Your task to perform on an android device: Show me productivity apps on the Play Store Image 0: 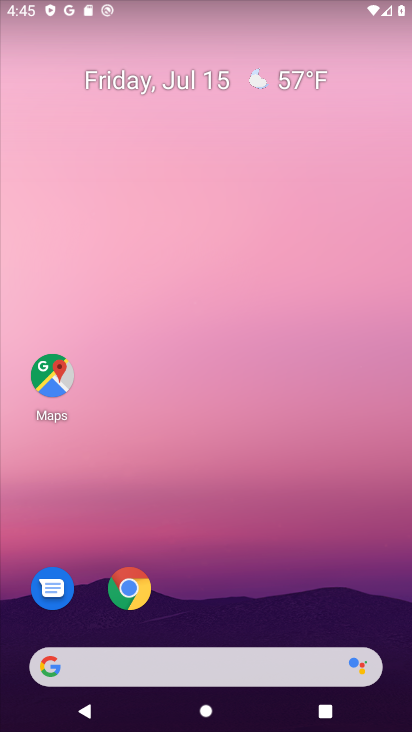
Step 0: drag from (307, 553) to (354, 196)
Your task to perform on an android device: Show me productivity apps on the Play Store Image 1: 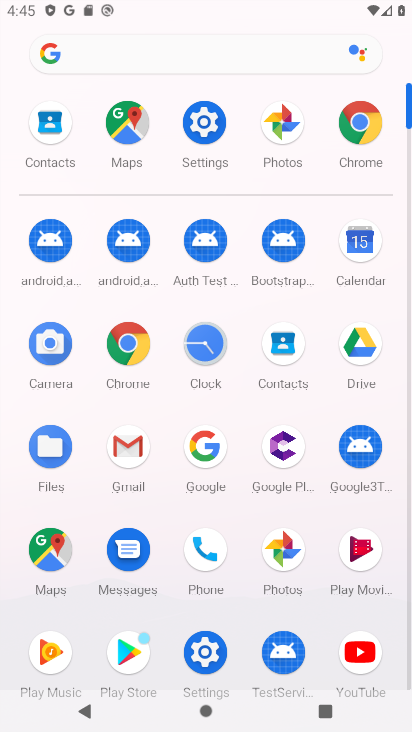
Step 1: click (135, 648)
Your task to perform on an android device: Show me productivity apps on the Play Store Image 2: 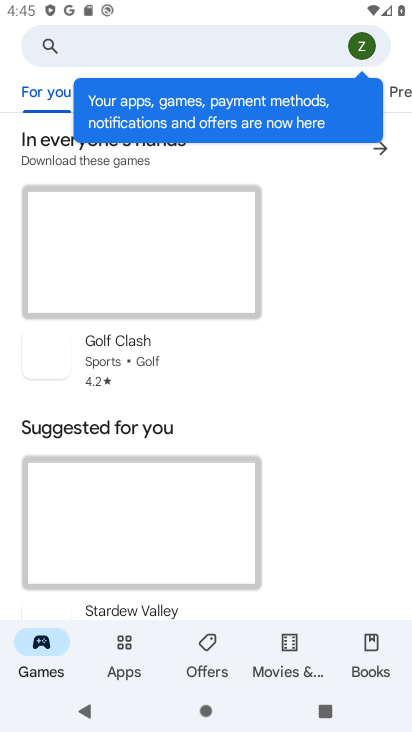
Step 2: click (209, 36)
Your task to perform on an android device: Show me productivity apps on the Play Store Image 3: 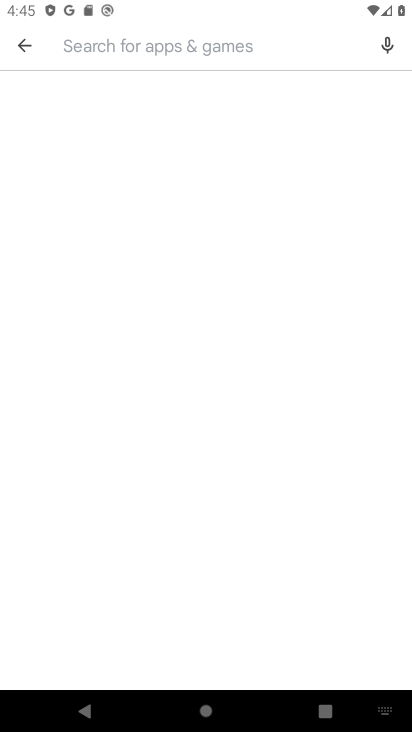
Step 3: type "productivity apps"
Your task to perform on an android device: Show me productivity apps on the Play Store Image 4: 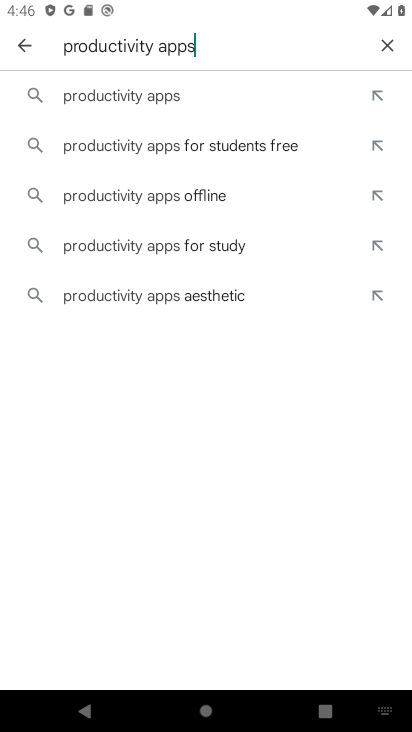
Step 4: click (159, 91)
Your task to perform on an android device: Show me productivity apps on the Play Store Image 5: 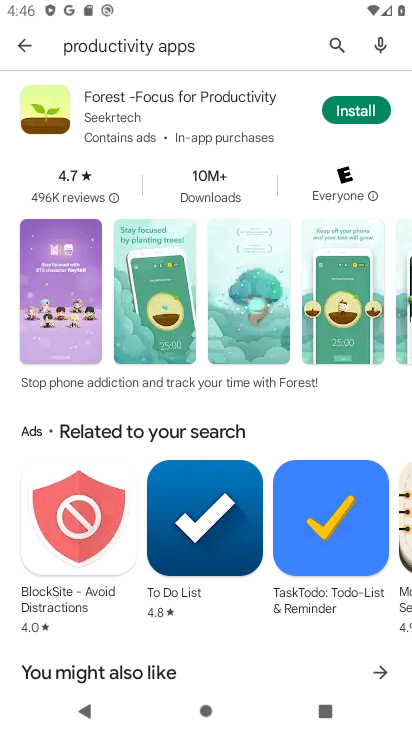
Step 5: task complete